Your task to perform on an android device: Open Google Image 0: 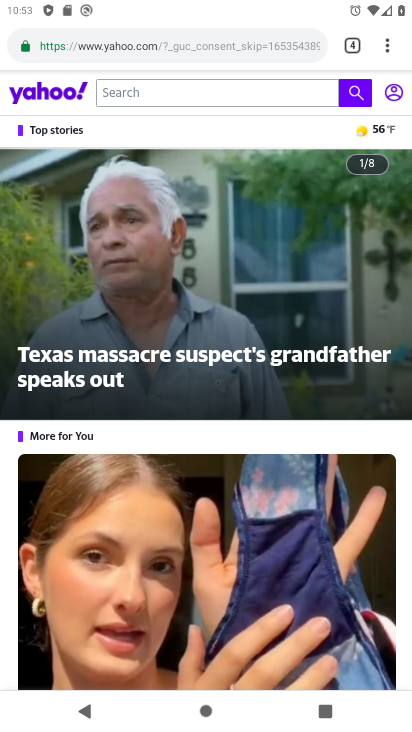
Step 0: press home button
Your task to perform on an android device: Open Google Image 1: 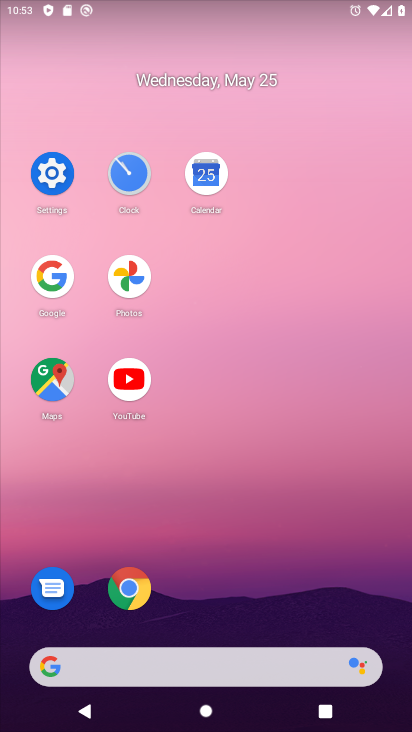
Step 1: click (44, 283)
Your task to perform on an android device: Open Google Image 2: 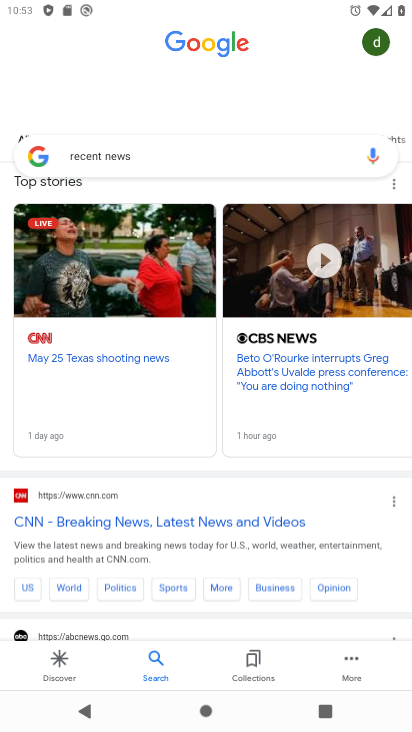
Step 2: task complete